Your task to perform on an android device: Open eBay Image 0: 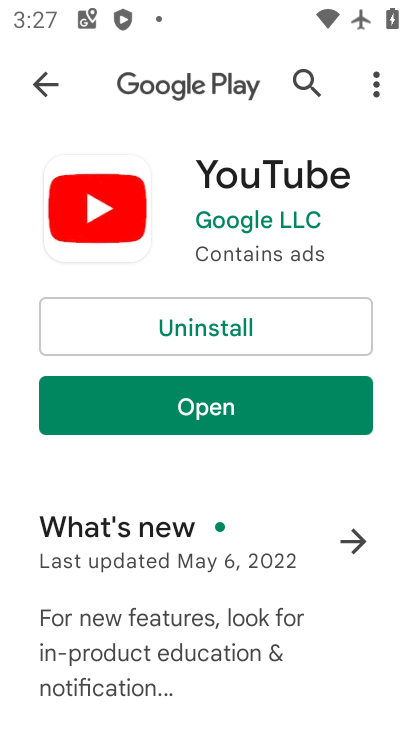
Step 0: press home button
Your task to perform on an android device: Open eBay Image 1: 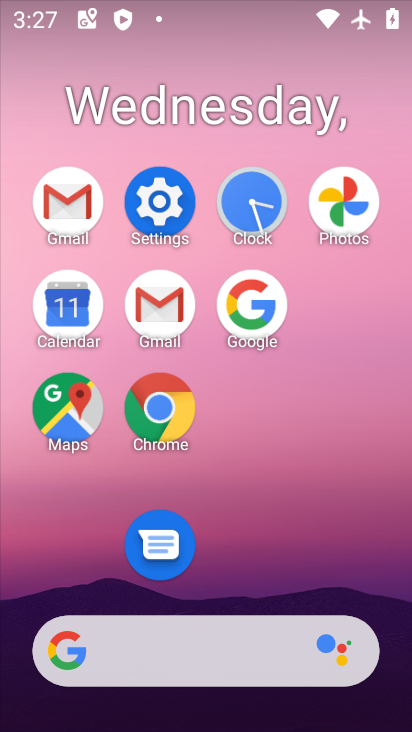
Step 1: click (154, 403)
Your task to perform on an android device: Open eBay Image 2: 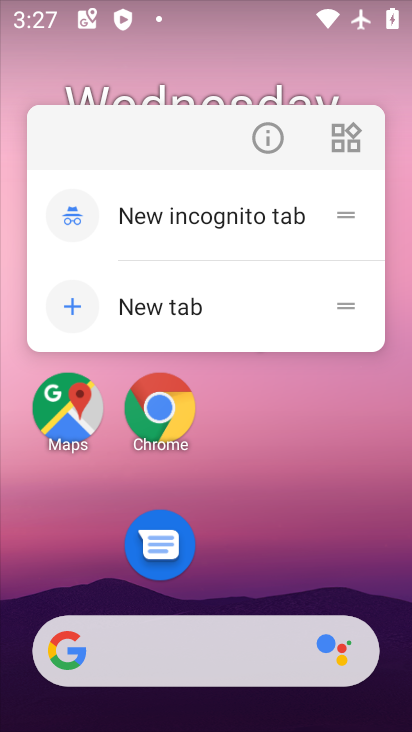
Step 2: click (154, 403)
Your task to perform on an android device: Open eBay Image 3: 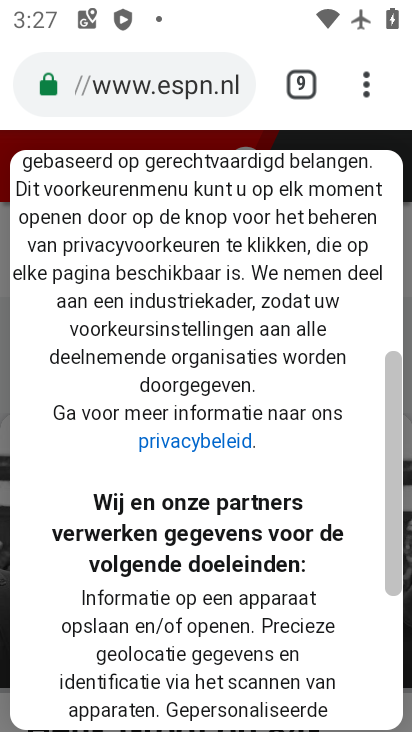
Step 3: click (303, 74)
Your task to perform on an android device: Open eBay Image 4: 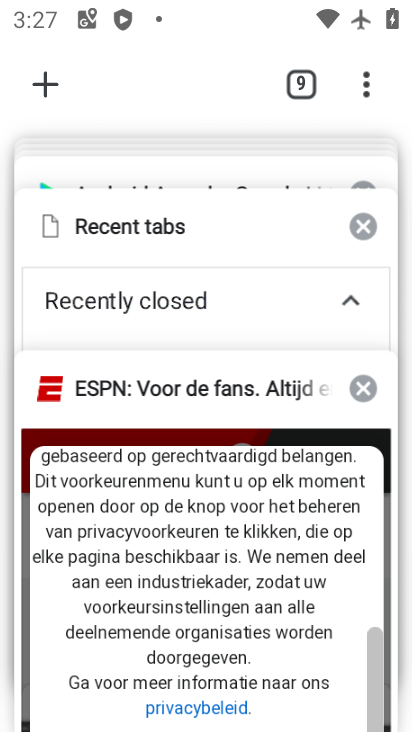
Step 4: drag from (210, 171) to (217, 430)
Your task to perform on an android device: Open eBay Image 5: 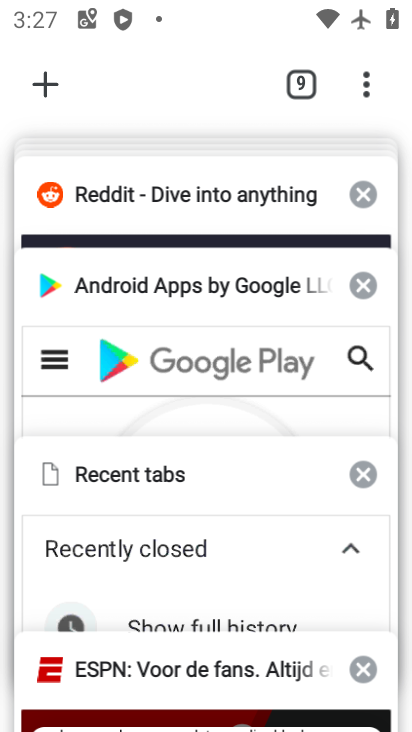
Step 5: drag from (195, 200) to (248, 531)
Your task to perform on an android device: Open eBay Image 6: 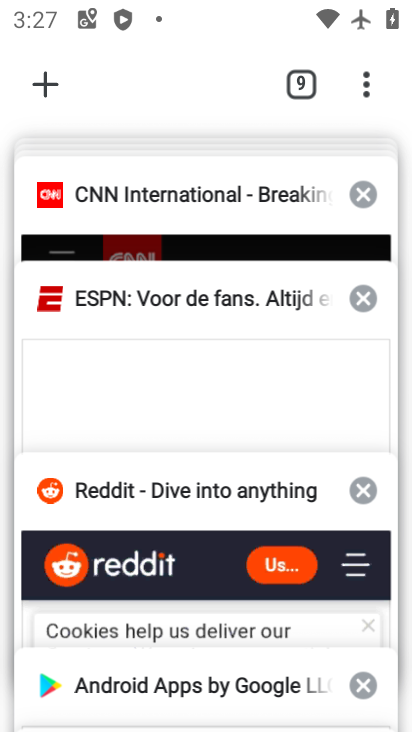
Step 6: drag from (195, 199) to (237, 481)
Your task to perform on an android device: Open eBay Image 7: 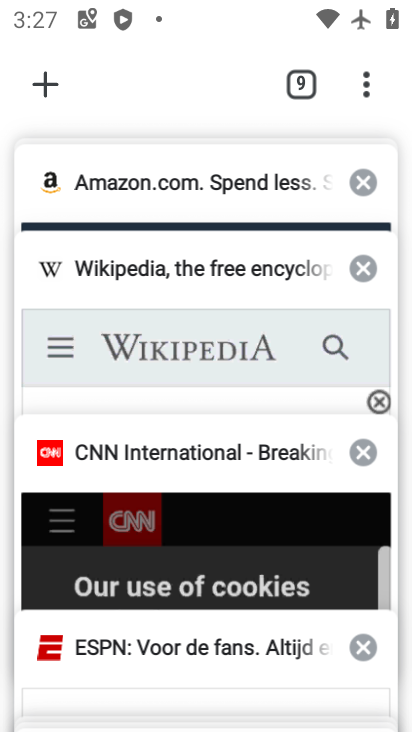
Step 7: drag from (164, 180) to (219, 467)
Your task to perform on an android device: Open eBay Image 8: 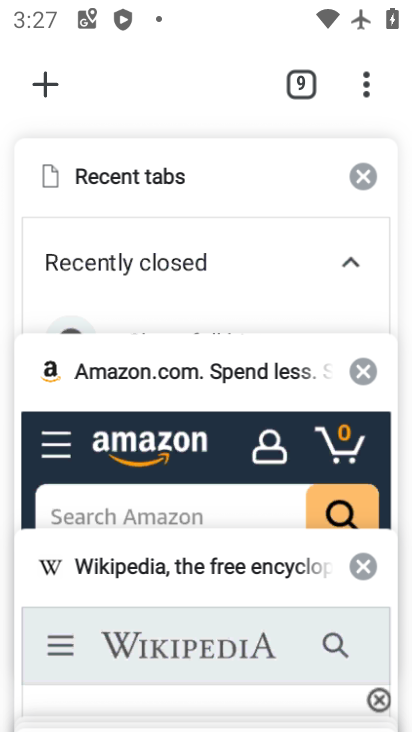
Step 8: drag from (203, 169) to (206, 369)
Your task to perform on an android device: Open eBay Image 9: 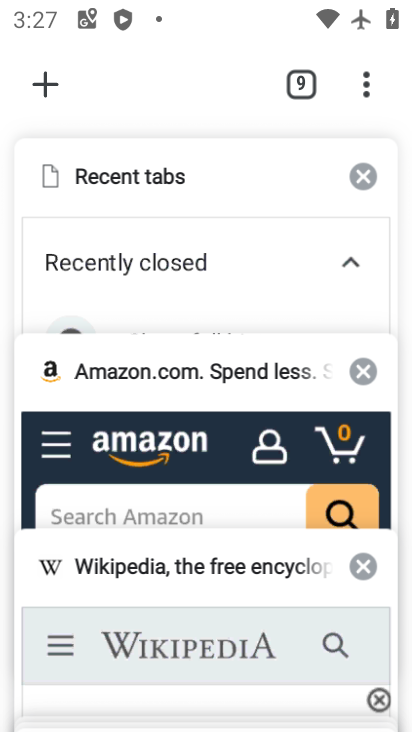
Step 9: click (43, 77)
Your task to perform on an android device: Open eBay Image 10: 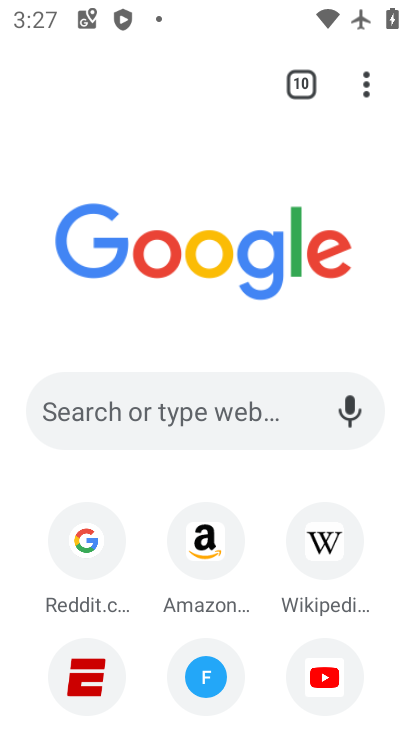
Step 10: click (224, 407)
Your task to perform on an android device: Open eBay Image 11: 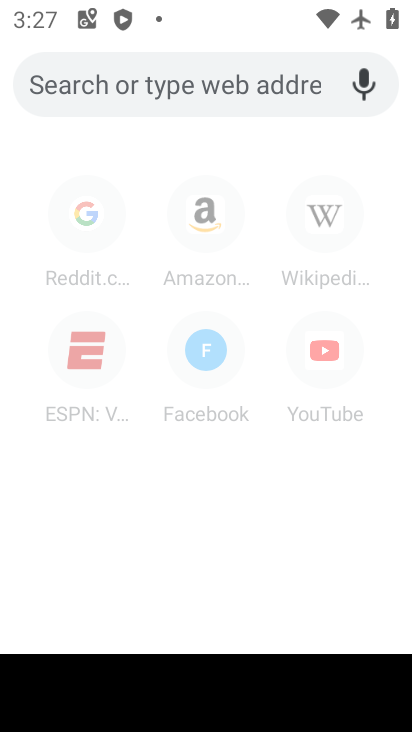
Step 11: type "ebay"
Your task to perform on an android device: Open eBay Image 12: 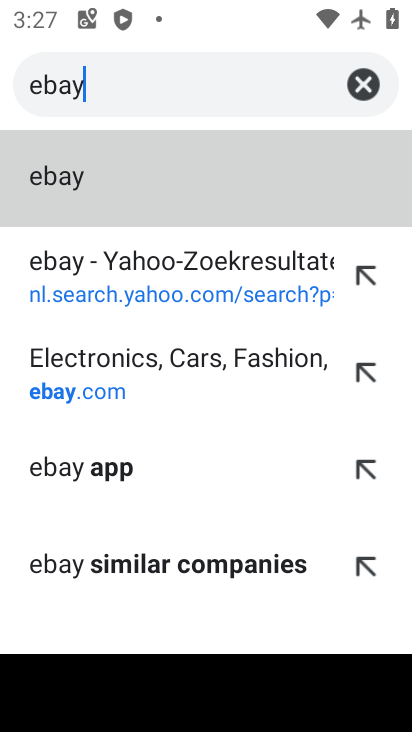
Step 12: click (87, 376)
Your task to perform on an android device: Open eBay Image 13: 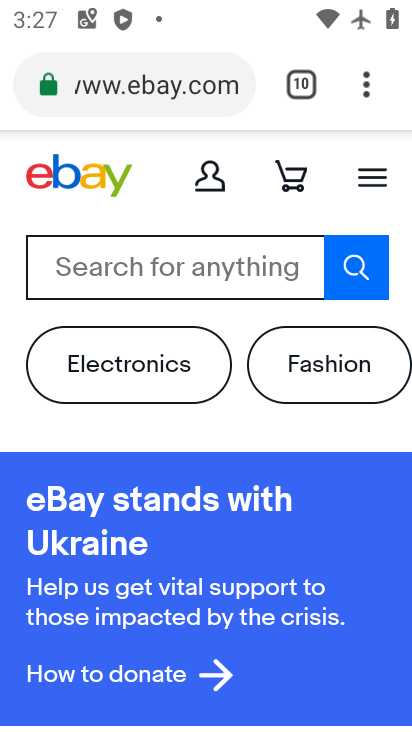
Step 13: task complete